Your task to perform on an android device: Open calendar and show me the third week of next month Image 0: 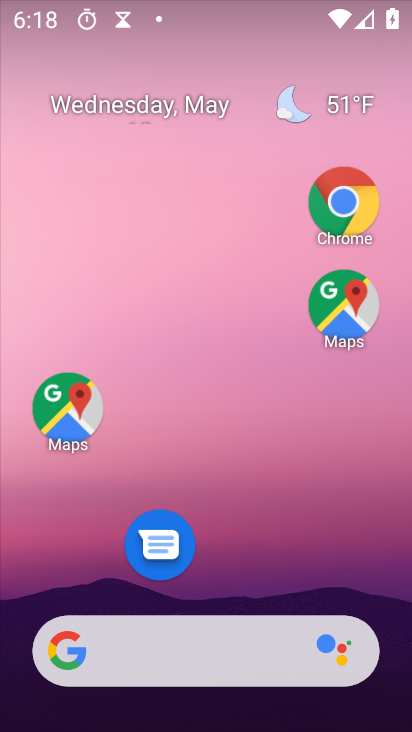
Step 0: drag from (241, 593) to (189, 47)
Your task to perform on an android device: Open calendar and show me the third week of next month Image 1: 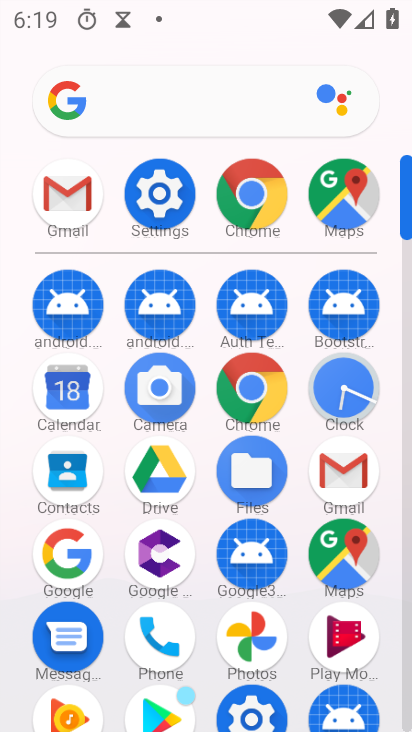
Step 1: click (62, 385)
Your task to perform on an android device: Open calendar and show me the third week of next month Image 2: 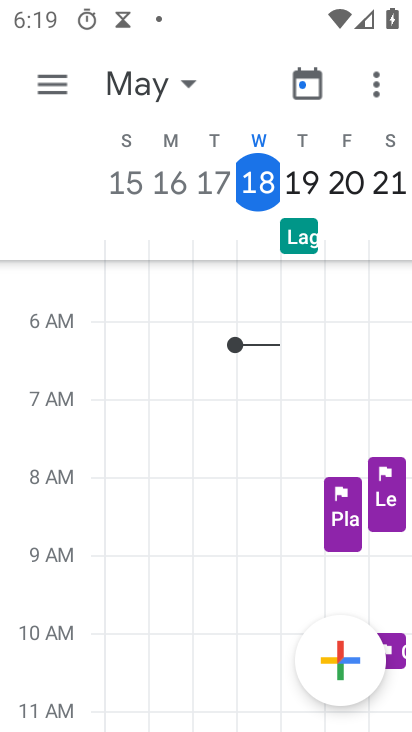
Step 2: click (131, 99)
Your task to perform on an android device: Open calendar and show me the third week of next month Image 3: 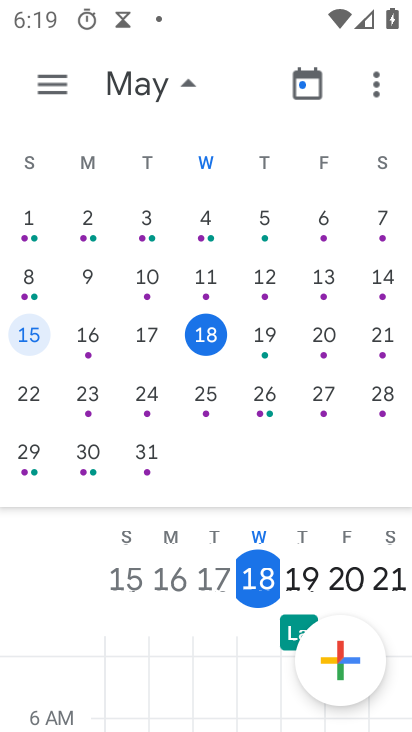
Step 3: drag from (316, 309) to (49, 274)
Your task to perform on an android device: Open calendar and show me the third week of next month Image 4: 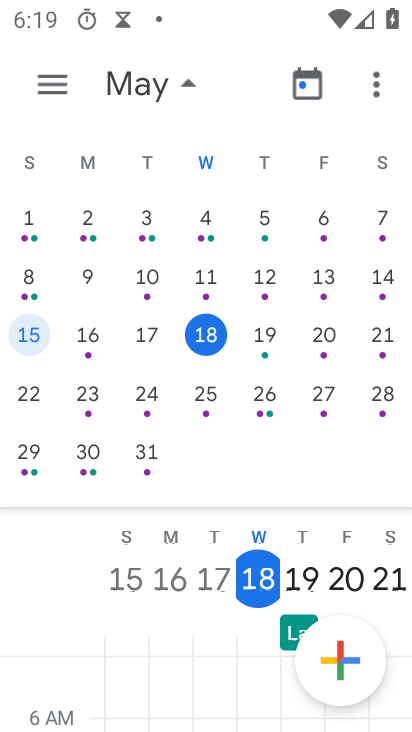
Step 4: drag from (37, 288) to (9, 231)
Your task to perform on an android device: Open calendar and show me the third week of next month Image 5: 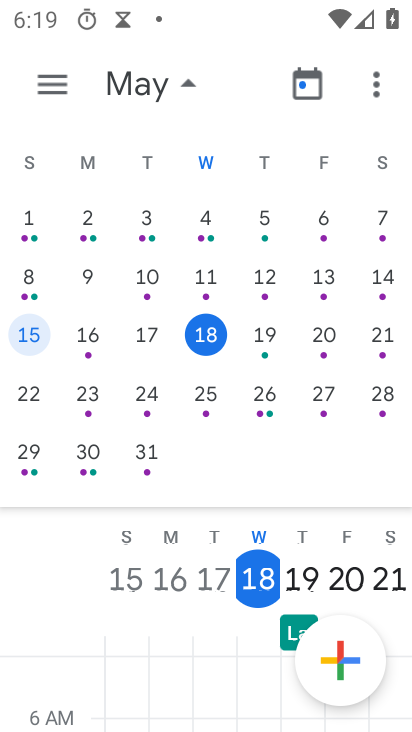
Step 5: drag from (349, 262) to (14, 236)
Your task to perform on an android device: Open calendar and show me the third week of next month Image 6: 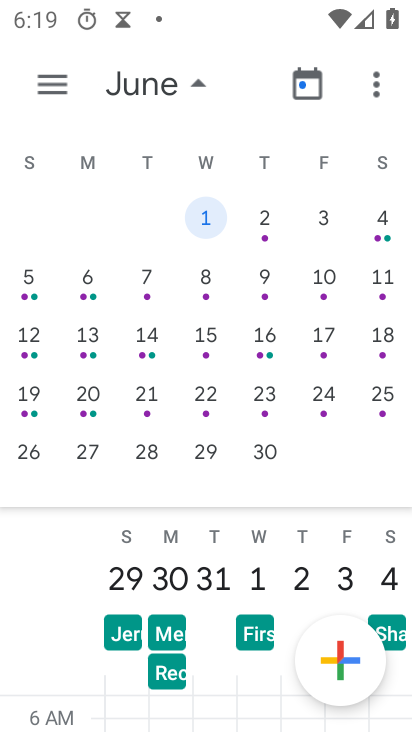
Step 6: click (26, 339)
Your task to perform on an android device: Open calendar and show me the third week of next month Image 7: 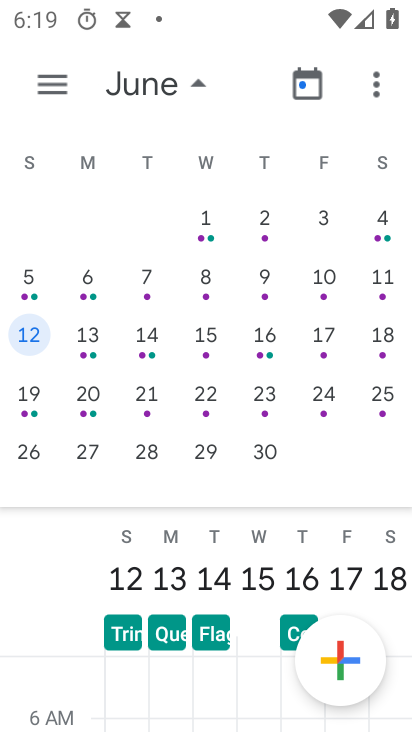
Step 7: task complete